Your task to perform on an android device: Find coffee shops on Maps Image 0: 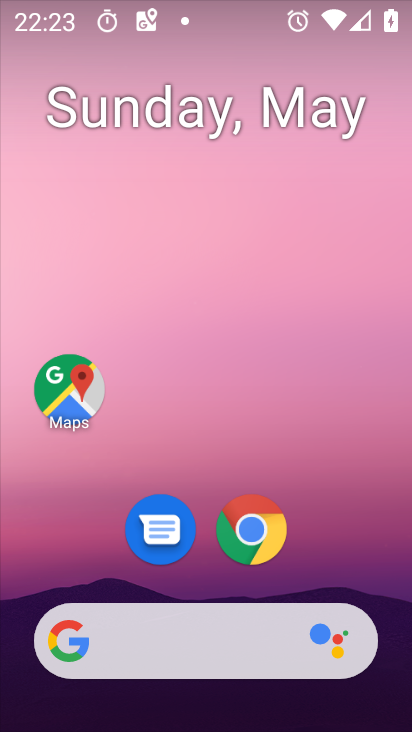
Step 0: click (68, 396)
Your task to perform on an android device: Find coffee shops on Maps Image 1: 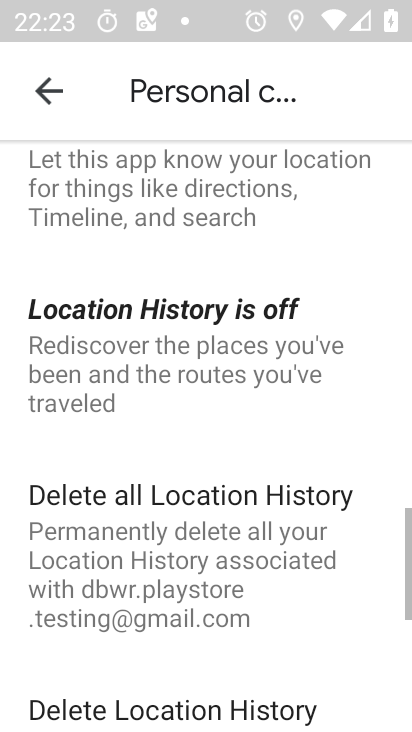
Step 1: click (50, 101)
Your task to perform on an android device: Find coffee shops on Maps Image 2: 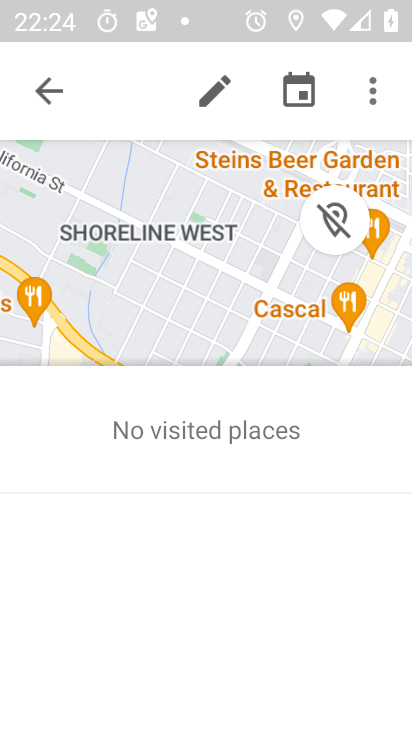
Step 2: click (59, 90)
Your task to perform on an android device: Find coffee shops on Maps Image 3: 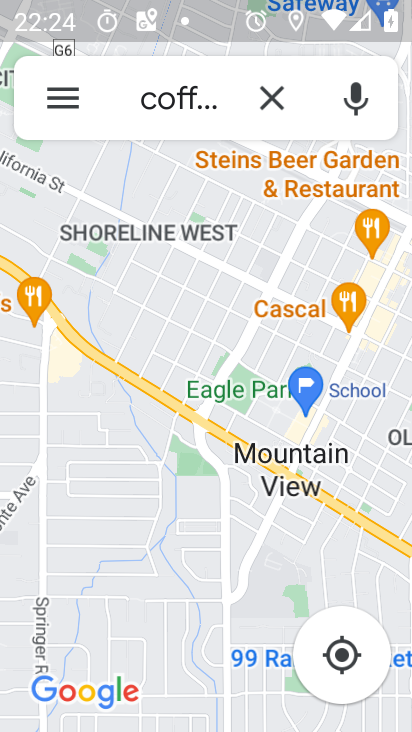
Step 3: click (218, 102)
Your task to perform on an android device: Find coffee shops on Maps Image 4: 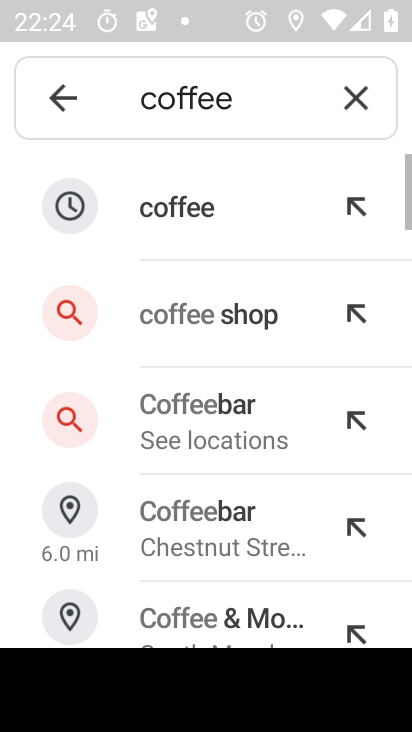
Step 4: click (203, 208)
Your task to perform on an android device: Find coffee shops on Maps Image 5: 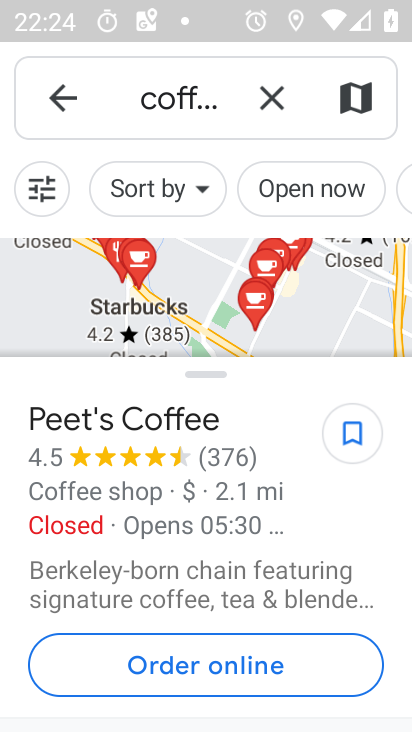
Step 5: click (281, 107)
Your task to perform on an android device: Find coffee shops on Maps Image 6: 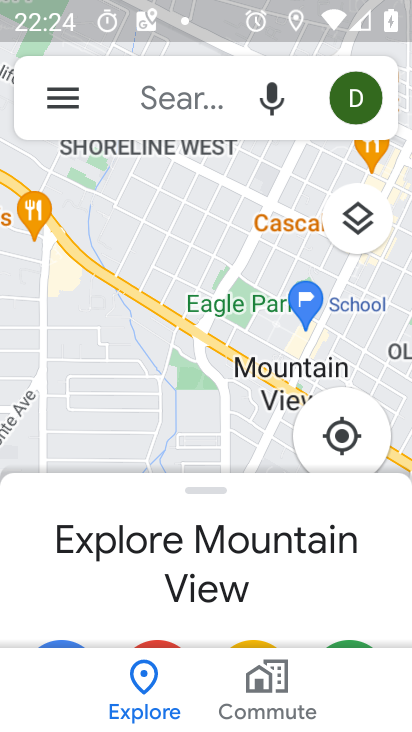
Step 6: click (129, 102)
Your task to perform on an android device: Find coffee shops on Maps Image 7: 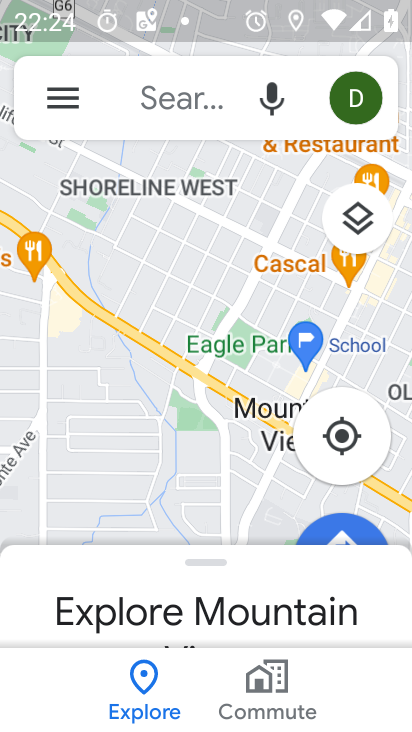
Step 7: click (140, 102)
Your task to perform on an android device: Find coffee shops on Maps Image 8: 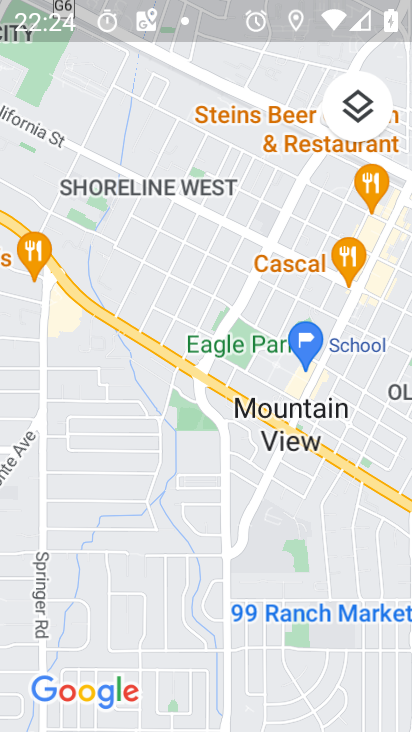
Step 8: click (146, 129)
Your task to perform on an android device: Find coffee shops on Maps Image 9: 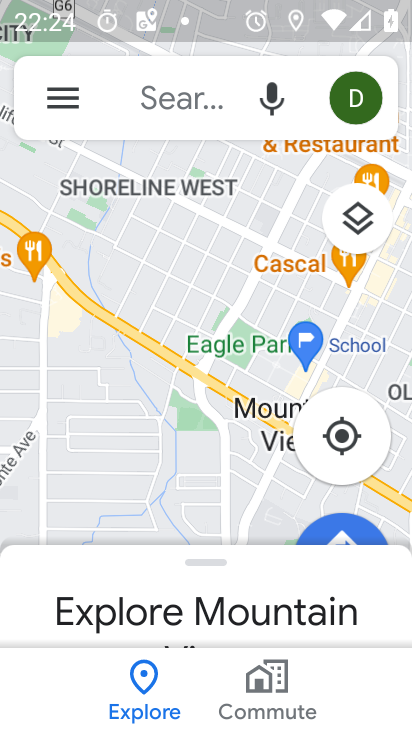
Step 9: click (159, 107)
Your task to perform on an android device: Find coffee shops on Maps Image 10: 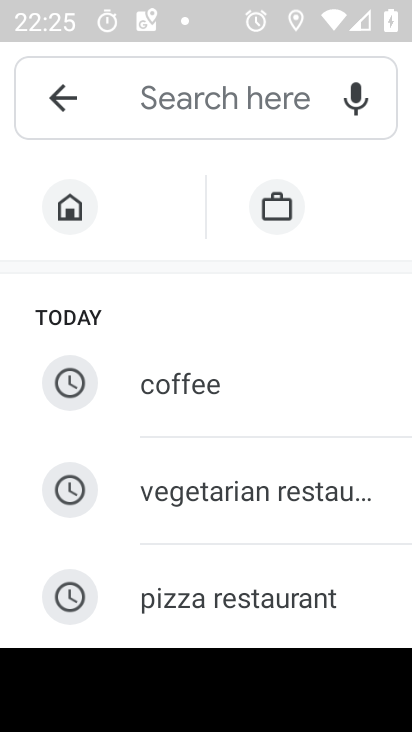
Step 10: type "coffee shops"
Your task to perform on an android device: Find coffee shops on Maps Image 11: 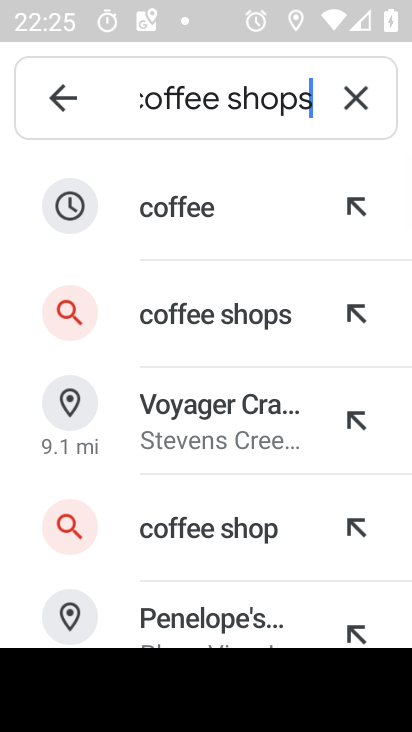
Step 11: click (184, 329)
Your task to perform on an android device: Find coffee shops on Maps Image 12: 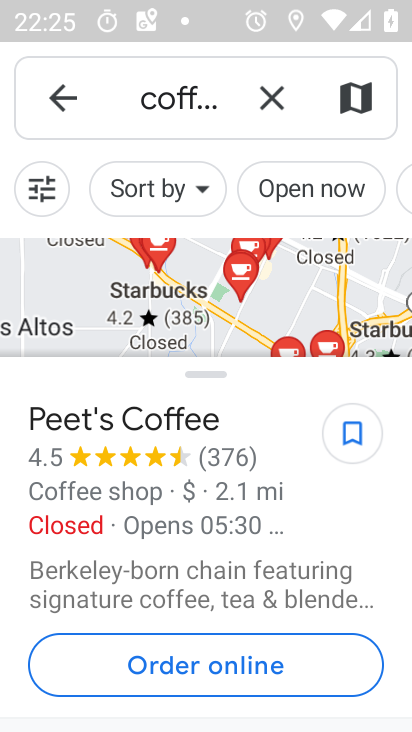
Step 12: task complete